Your task to perform on an android device: turn on improve location accuracy Image 0: 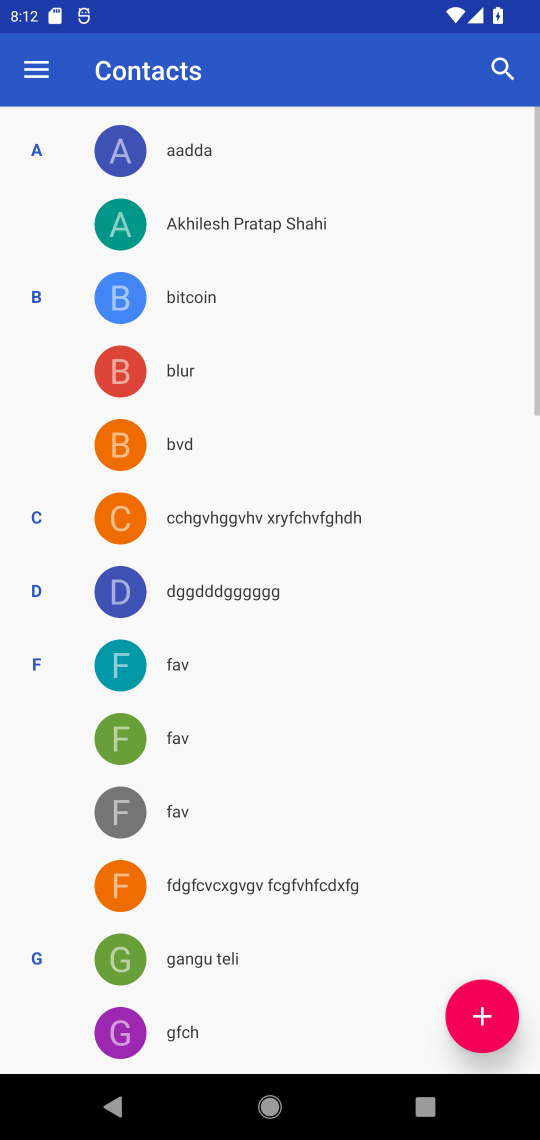
Step 0: press home button
Your task to perform on an android device: turn on improve location accuracy Image 1: 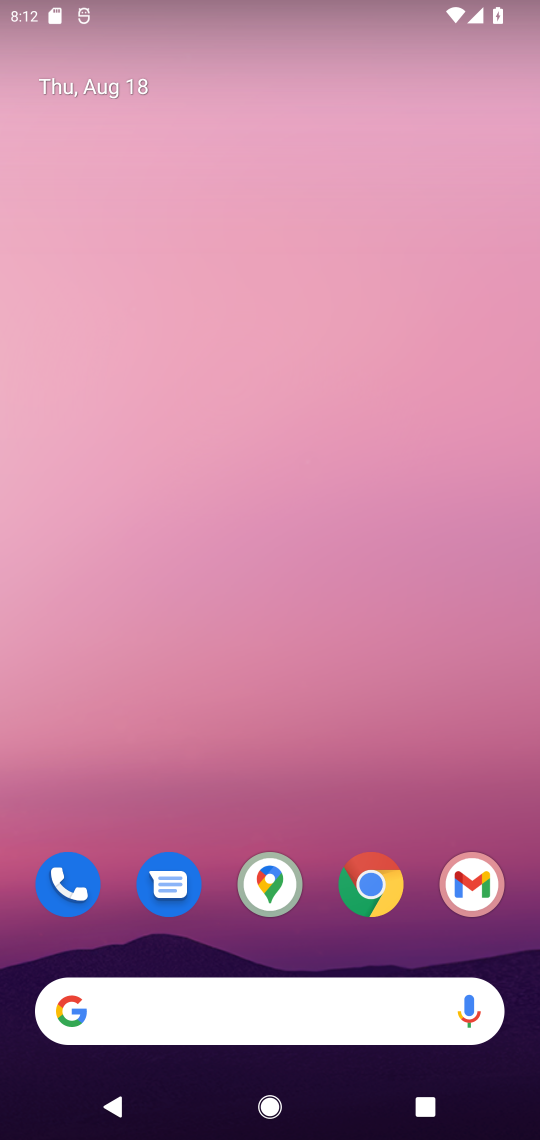
Step 1: drag from (440, 965) to (448, 375)
Your task to perform on an android device: turn on improve location accuracy Image 2: 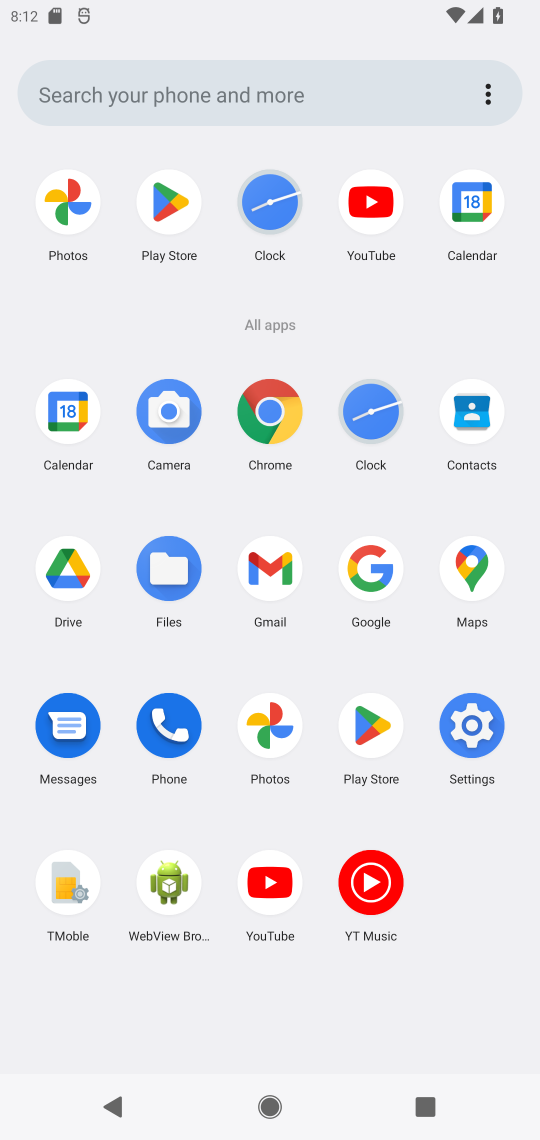
Step 2: click (466, 551)
Your task to perform on an android device: turn on improve location accuracy Image 3: 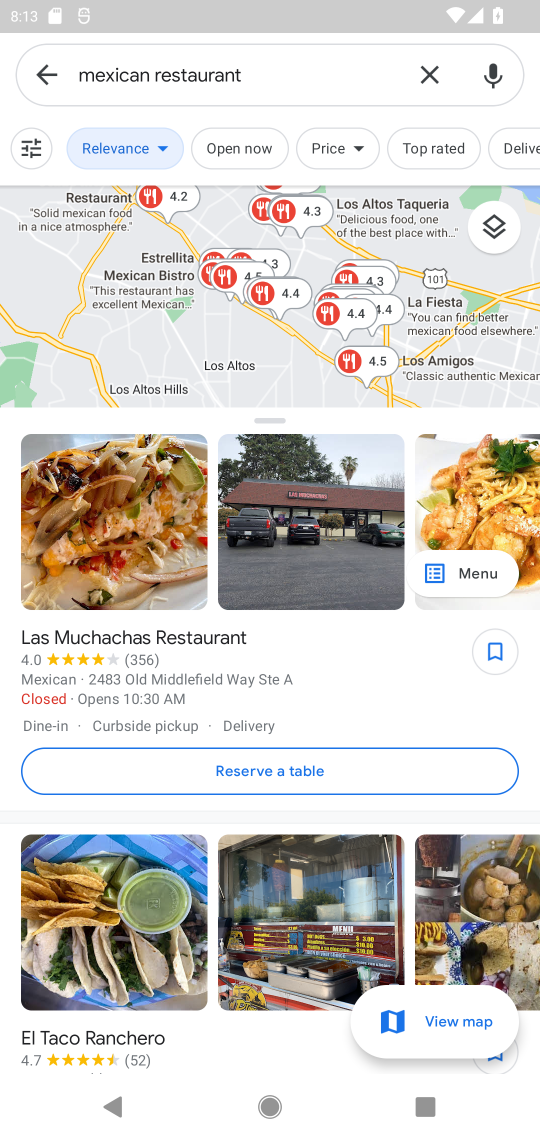
Step 3: click (56, 68)
Your task to perform on an android device: turn on improve location accuracy Image 4: 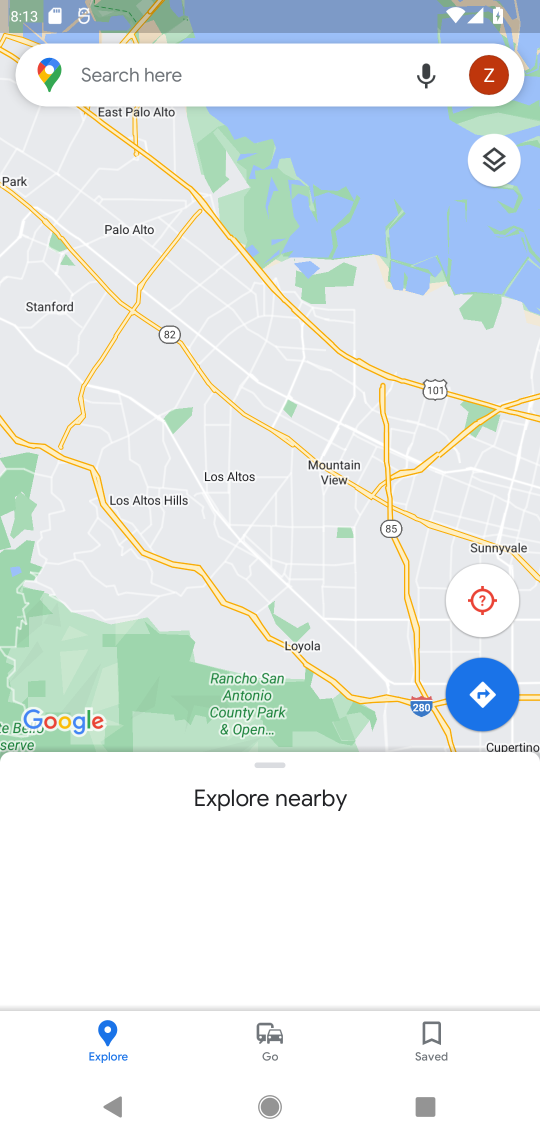
Step 4: click (487, 76)
Your task to perform on an android device: turn on improve location accuracy Image 5: 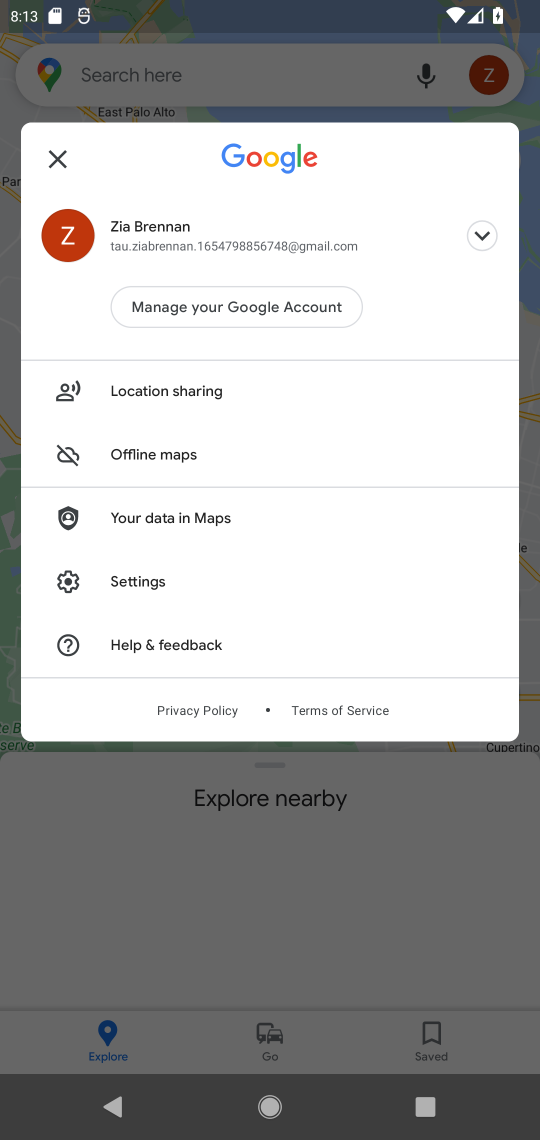
Step 5: task complete